Your task to perform on an android device: turn pop-ups off in chrome Image 0: 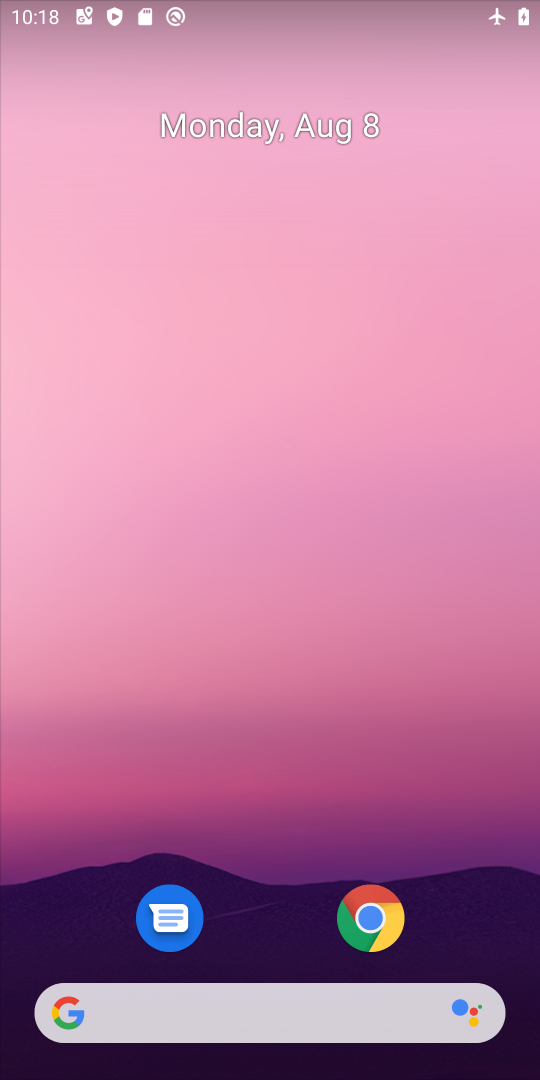
Step 0: drag from (283, 1008) to (232, 1008)
Your task to perform on an android device: turn pop-ups off in chrome Image 1: 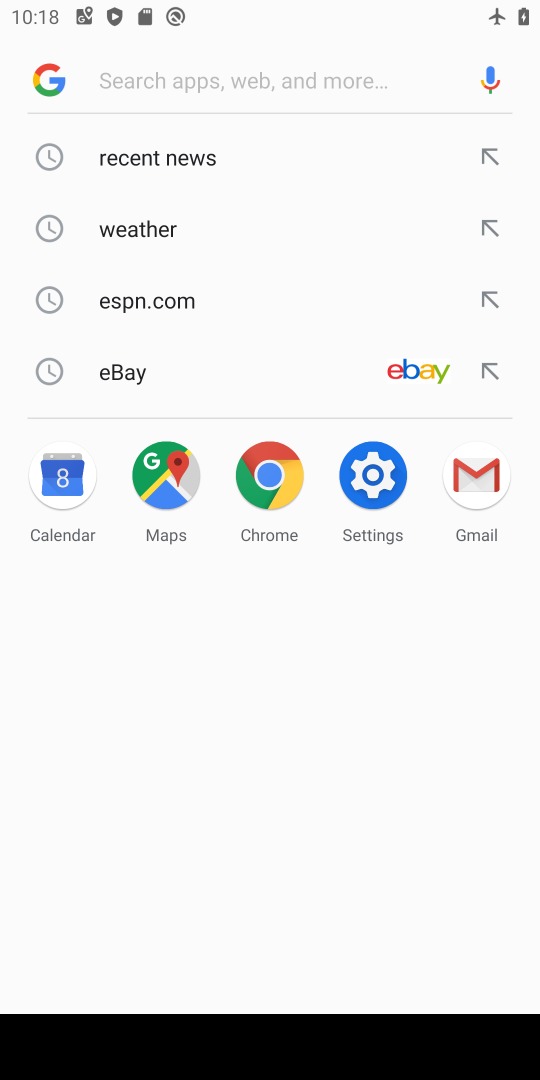
Step 1: click (268, 481)
Your task to perform on an android device: turn pop-ups off in chrome Image 2: 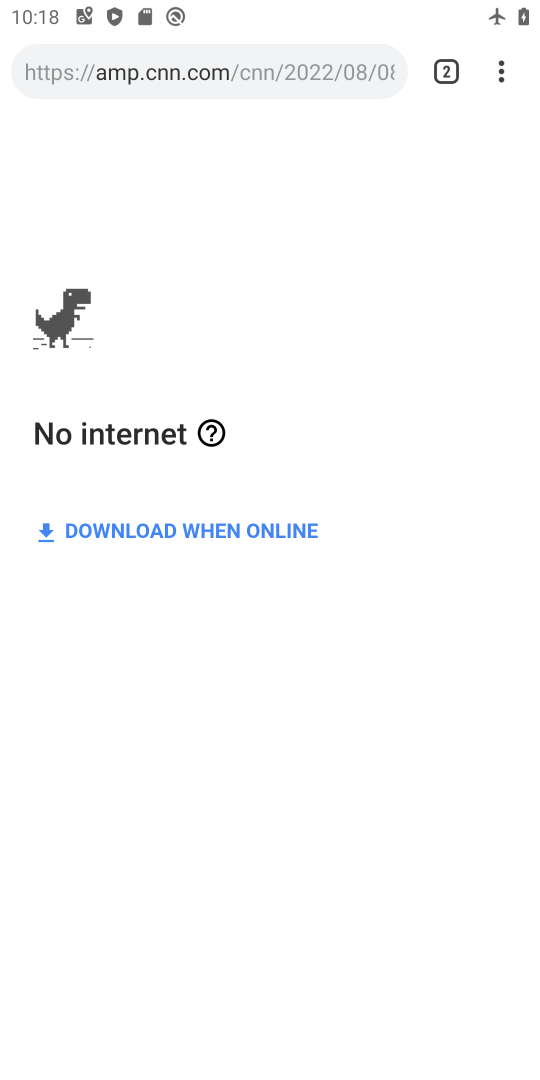
Step 2: click (510, 65)
Your task to perform on an android device: turn pop-ups off in chrome Image 3: 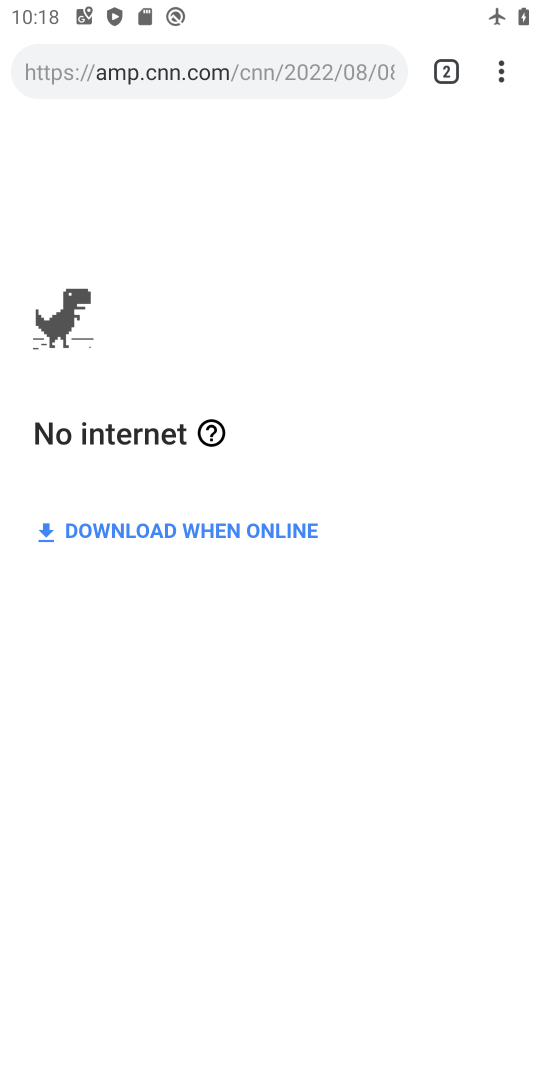
Step 3: drag from (509, 73) to (255, 799)
Your task to perform on an android device: turn pop-ups off in chrome Image 4: 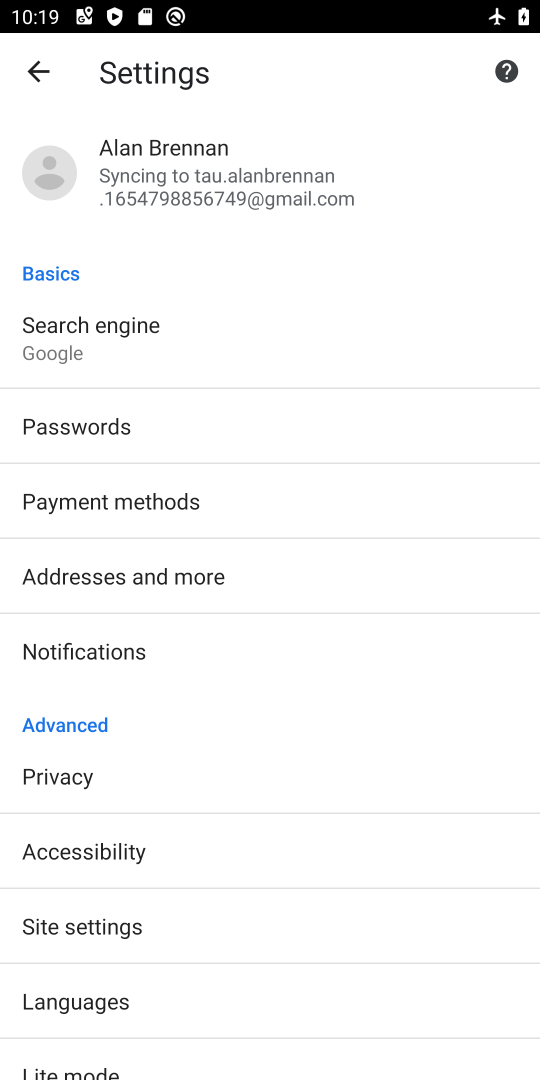
Step 4: click (183, 938)
Your task to perform on an android device: turn pop-ups off in chrome Image 5: 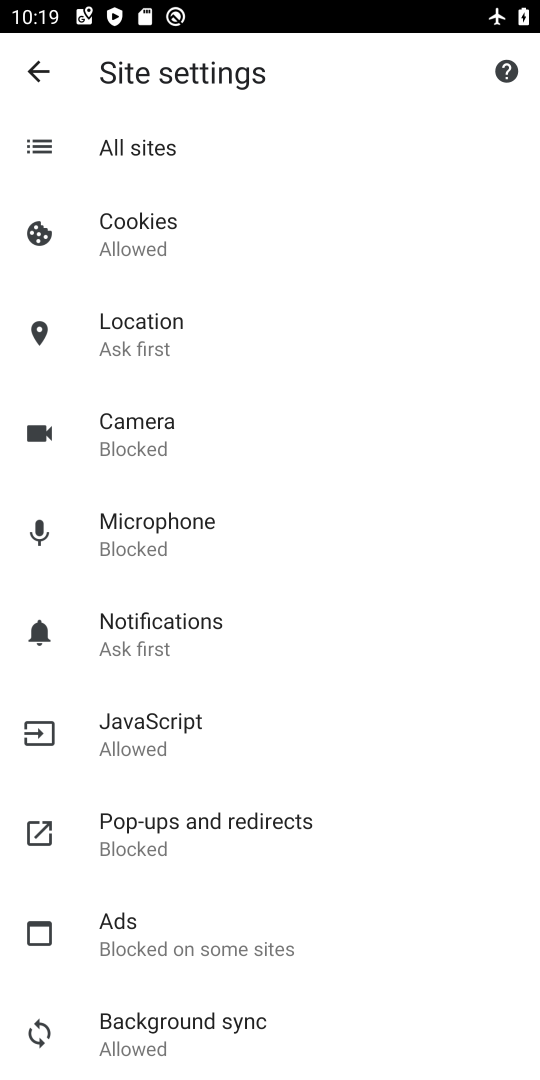
Step 5: click (233, 860)
Your task to perform on an android device: turn pop-ups off in chrome Image 6: 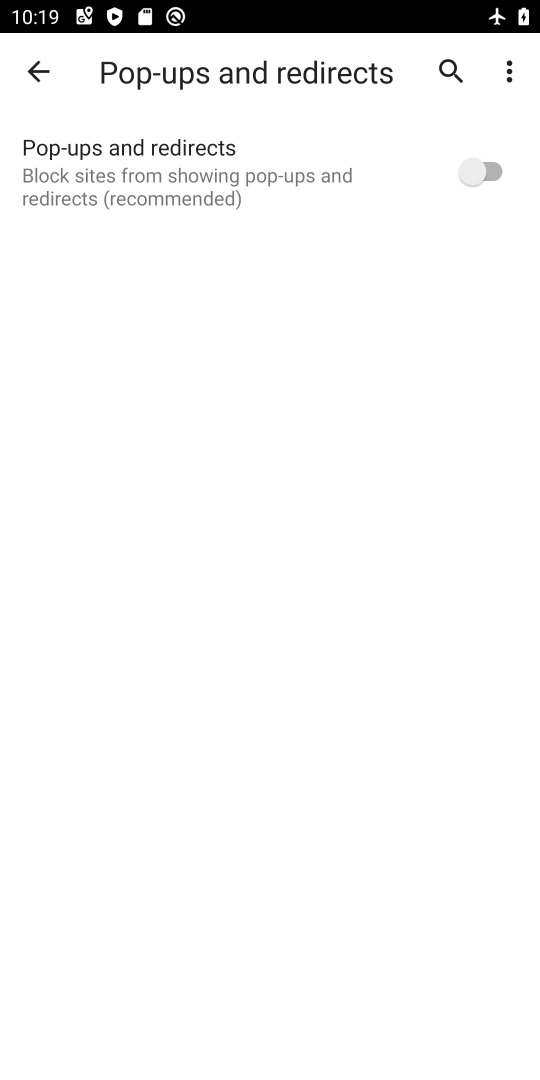
Step 6: task complete